Your task to perform on an android device: What is the recent news? Image 0: 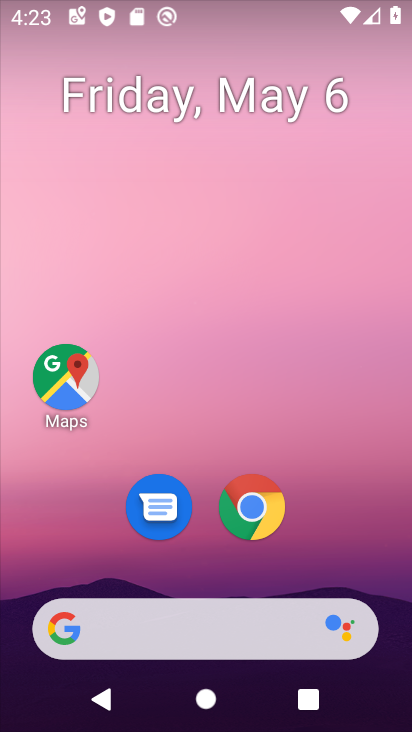
Step 0: drag from (11, 248) to (391, 302)
Your task to perform on an android device: What is the recent news? Image 1: 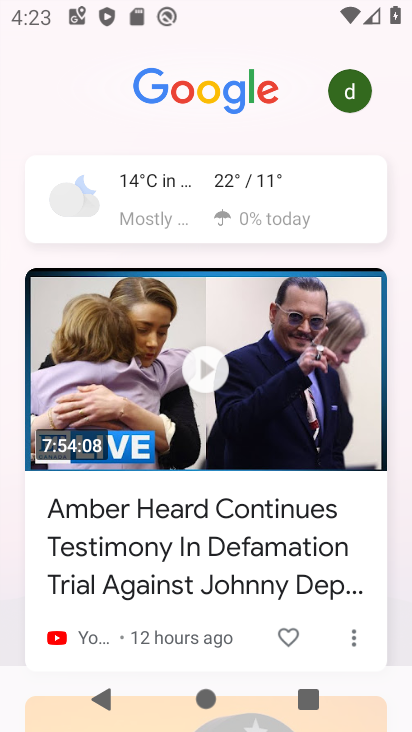
Step 1: task complete